Your task to perform on an android device: turn off notifications in google photos Image 0: 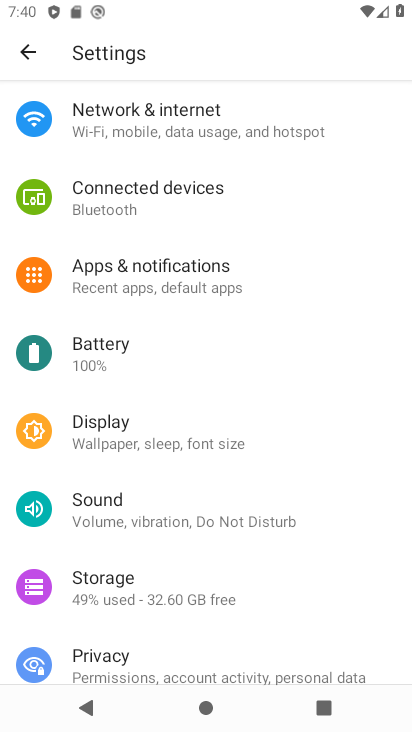
Step 0: click (203, 269)
Your task to perform on an android device: turn off notifications in google photos Image 1: 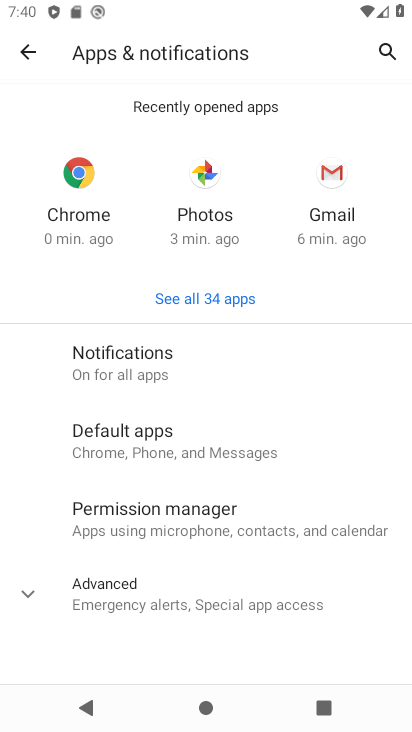
Step 1: click (210, 166)
Your task to perform on an android device: turn off notifications in google photos Image 2: 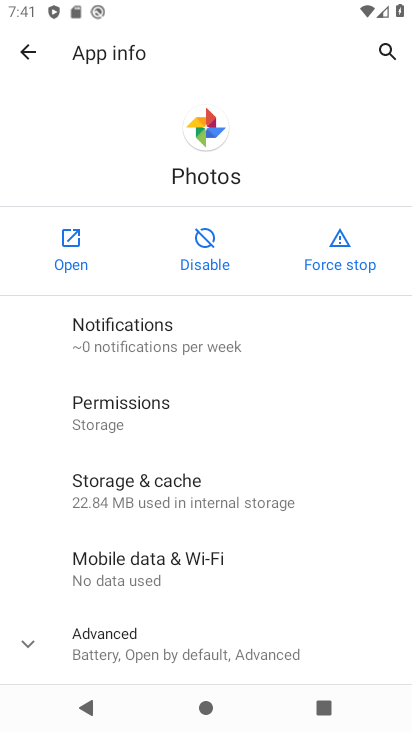
Step 2: click (174, 323)
Your task to perform on an android device: turn off notifications in google photos Image 3: 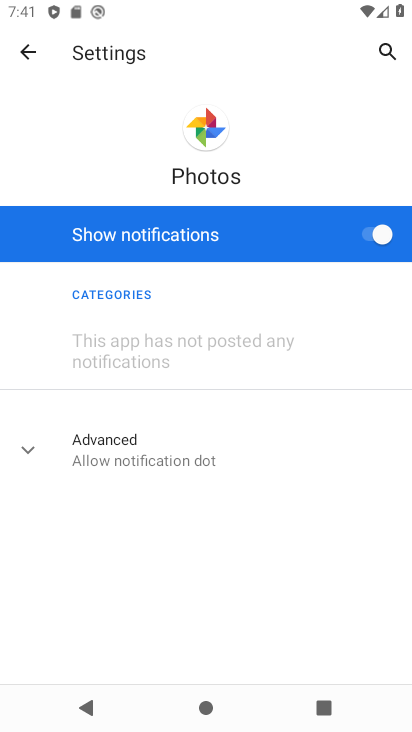
Step 3: click (370, 240)
Your task to perform on an android device: turn off notifications in google photos Image 4: 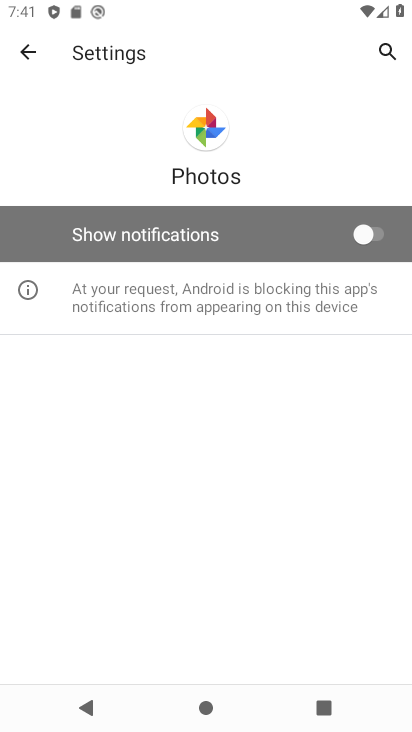
Step 4: task complete